Your task to perform on an android device: make emails show in primary in the gmail app Image 0: 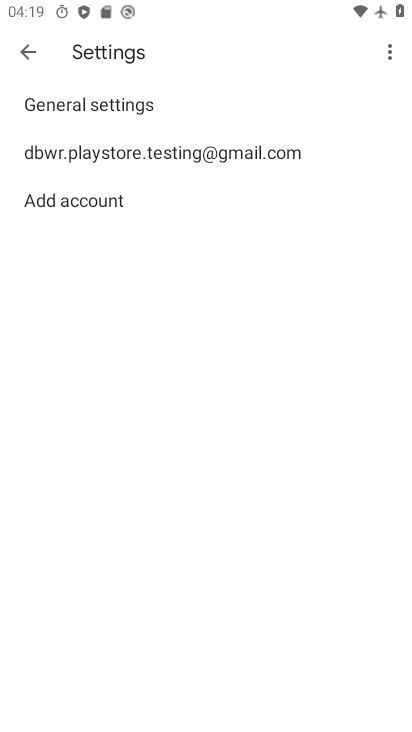
Step 0: press home button
Your task to perform on an android device: make emails show in primary in the gmail app Image 1: 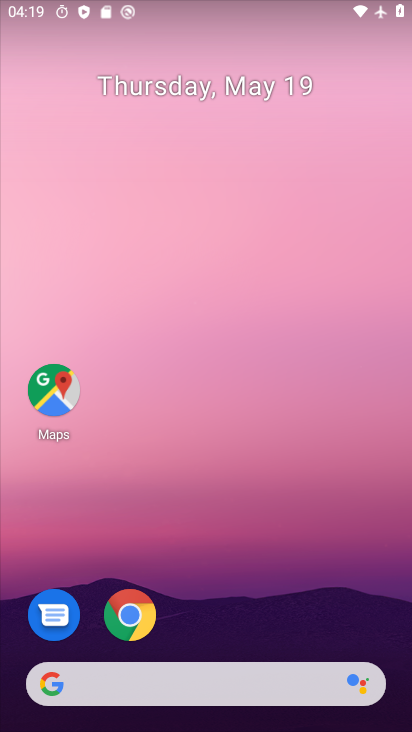
Step 1: drag from (304, 641) to (192, 47)
Your task to perform on an android device: make emails show in primary in the gmail app Image 2: 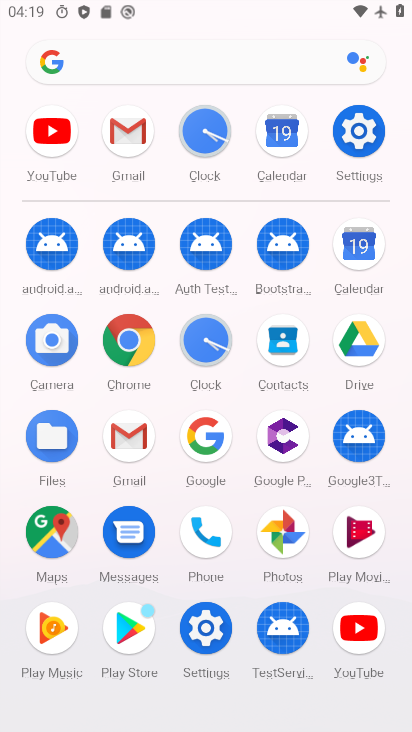
Step 2: click (131, 141)
Your task to perform on an android device: make emails show in primary in the gmail app Image 3: 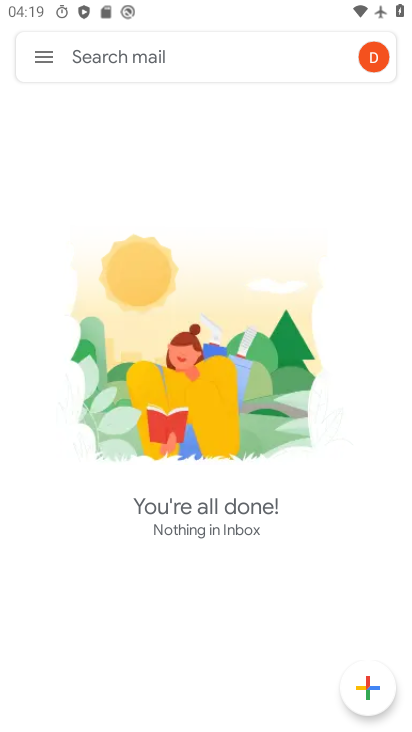
Step 3: click (42, 57)
Your task to perform on an android device: make emails show in primary in the gmail app Image 4: 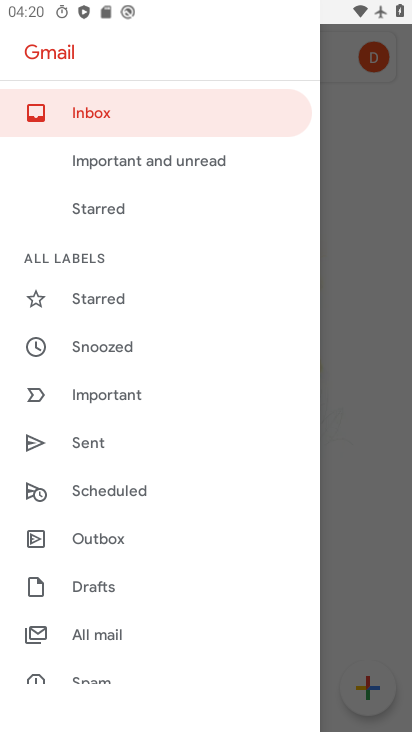
Step 4: drag from (161, 506) to (182, 85)
Your task to perform on an android device: make emails show in primary in the gmail app Image 5: 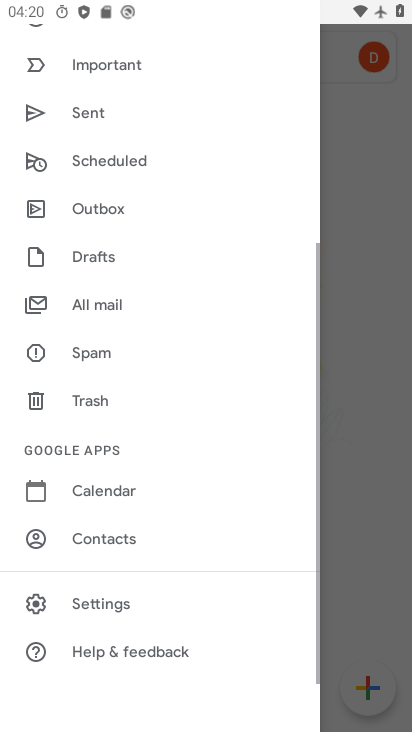
Step 5: click (74, 600)
Your task to perform on an android device: make emails show in primary in the gmail app Image 6: 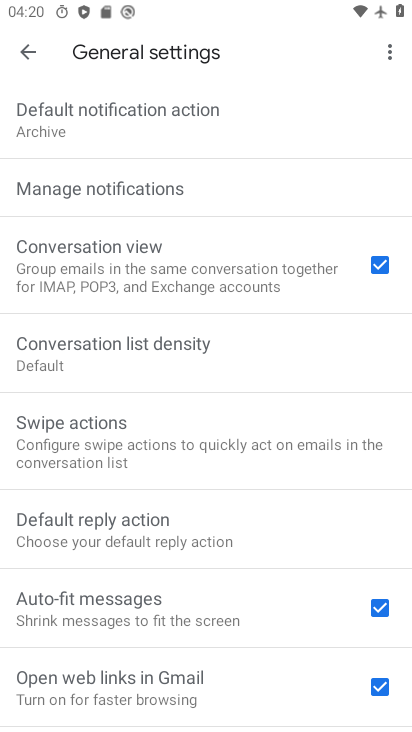
Step 6: click (21, 59)
Your task to perform on an android device: make emails show in primary in the gmail app Image 7: 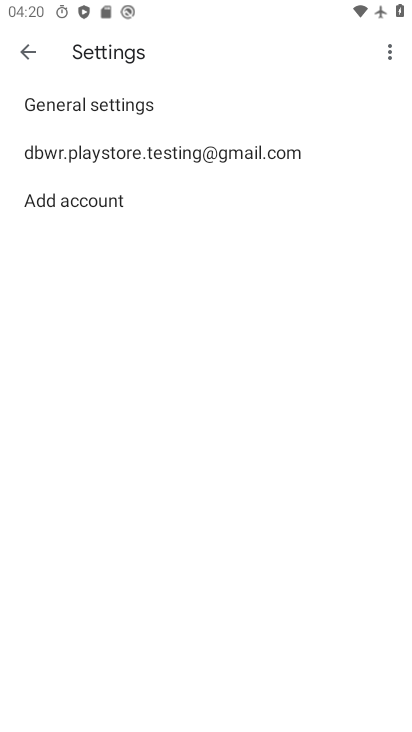
Step 7: click (74, 159)
Your task to perform on an android device: make emails show in primary in the gmail app Image 8: 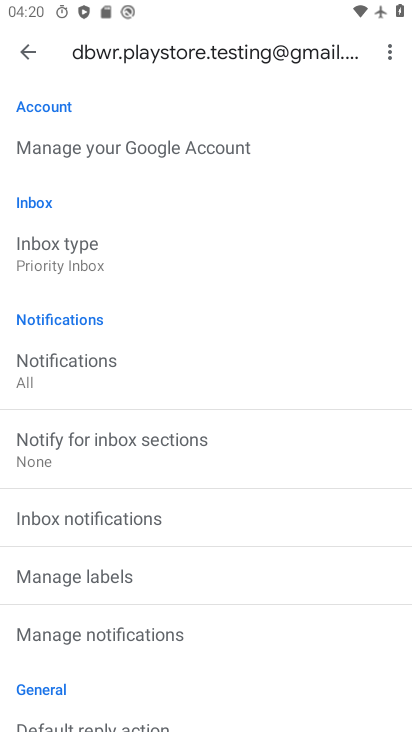
Step 8: task complete